Your task to perform on an android device: Open Android settings Image 0: 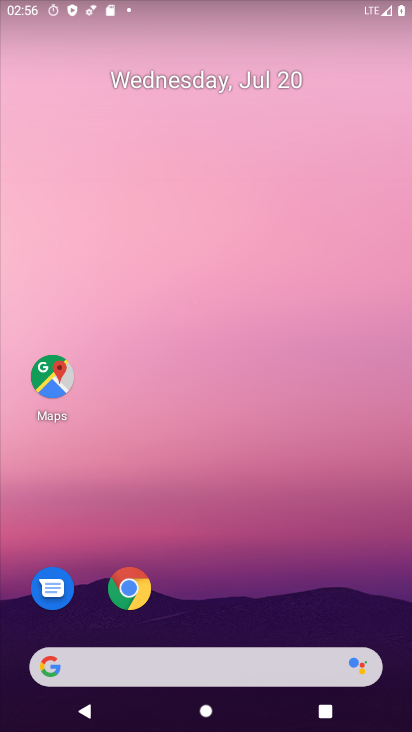
Step 0: drag from (191, 630) to (247, 34)
Your task to perform on an android device: Open Android settings Image 1: 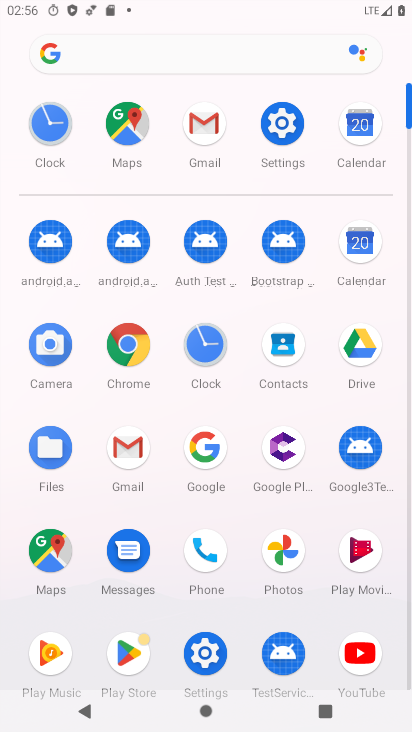
Step 1: click (213, 648)
Your task to perform on an android device: Open Android settings Image 2: 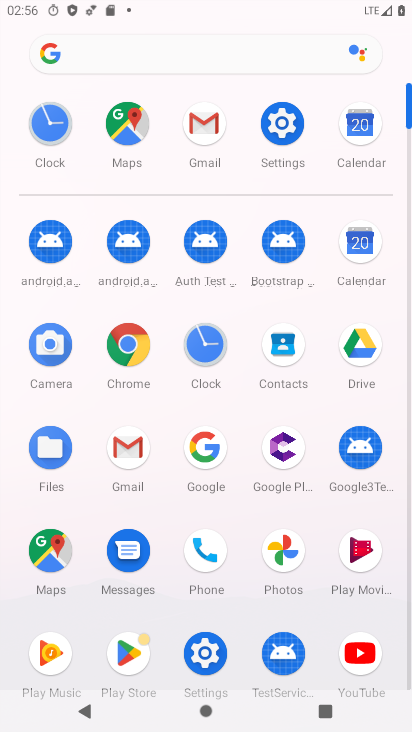
Step 2: click (213, 648)
Your task to perform on an android device: Open Android settings Image 3: 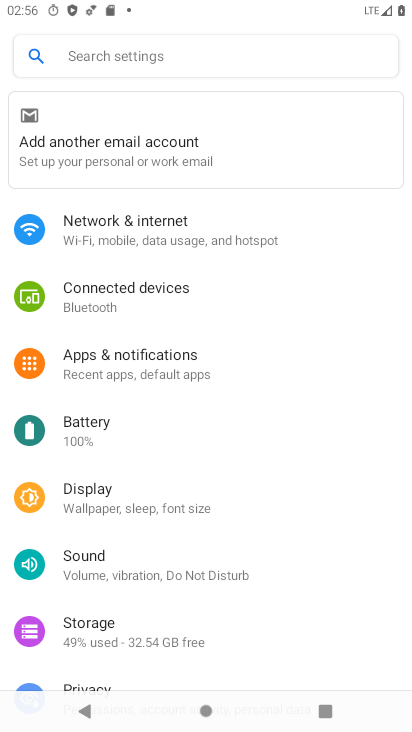
Step 3: drag from (180, 603) to (233, 86)
Your task to perform on an android device: Open Android settings Image 4: 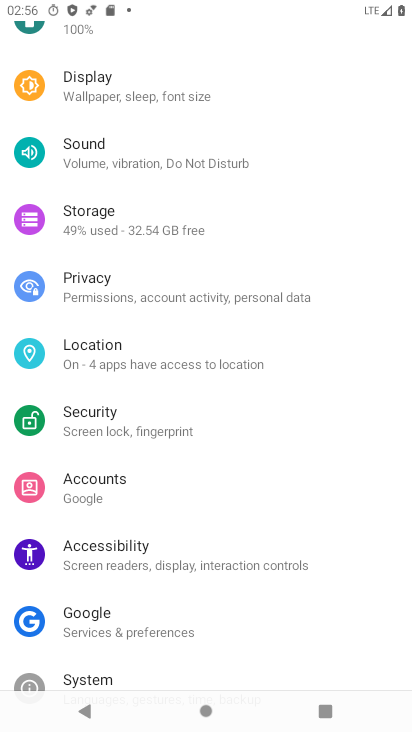
Step 4: drag from (185, 643) to (250, 182)
Your task to perform on an android device: Open Android settings Image 5: 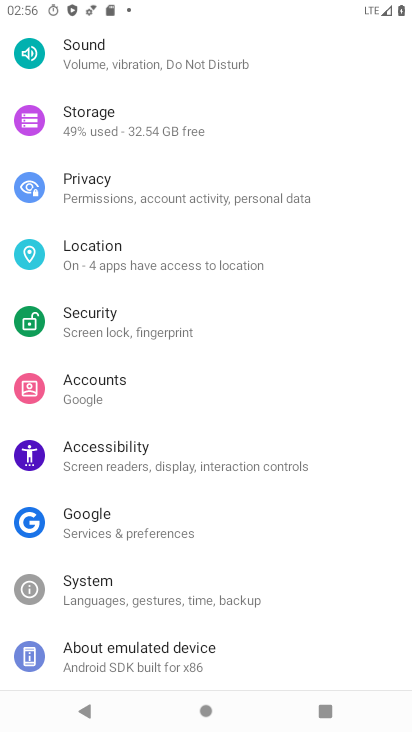
Step 5: click (172, 653)
Your task to perform on an android device: Open Android settings Image 6: 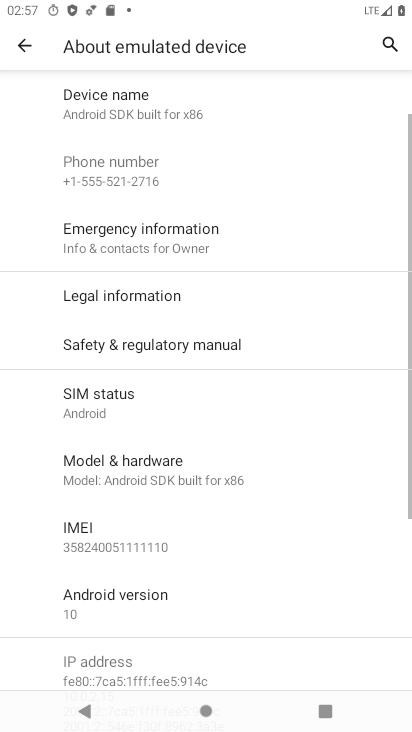
Step 6: drag from (158, 649) to (285, 241)
Your task to perform on an android device: Open Android settings Image 7: 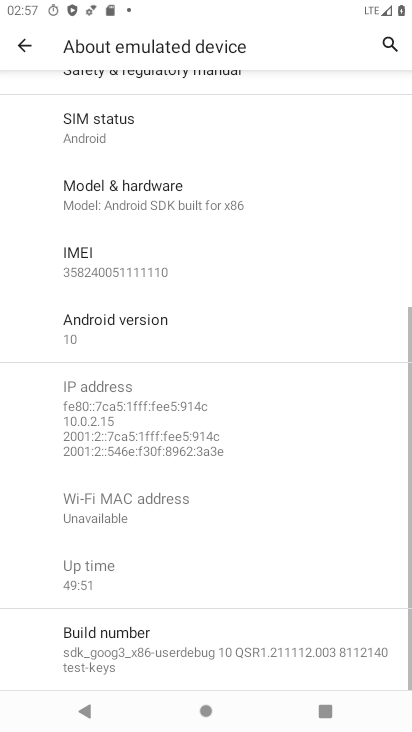
Step 7: click (155, 331)
Your task to perform on an android device: Open Android settings Image 8: 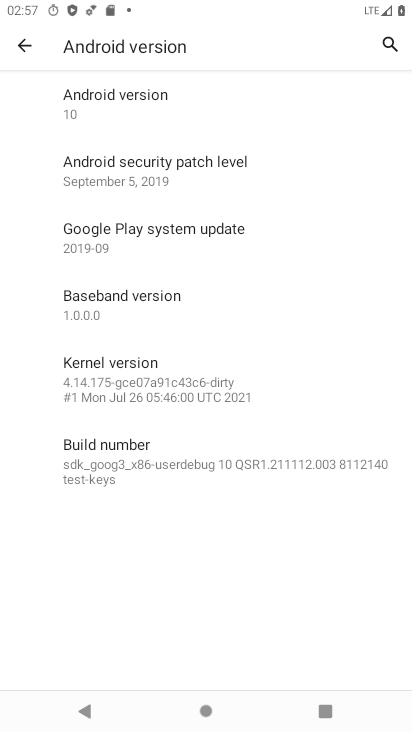
Step 8: task complete